Your task to perform on an android device: Is it going to rain today? Image 0: 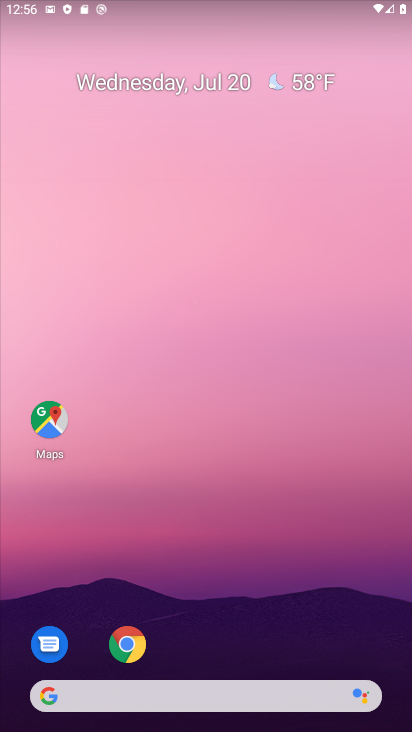
Step 0: drag from (193, 649) to (272, 79)
Your task to perform on an android device: Is it going to rain today? Image 1: 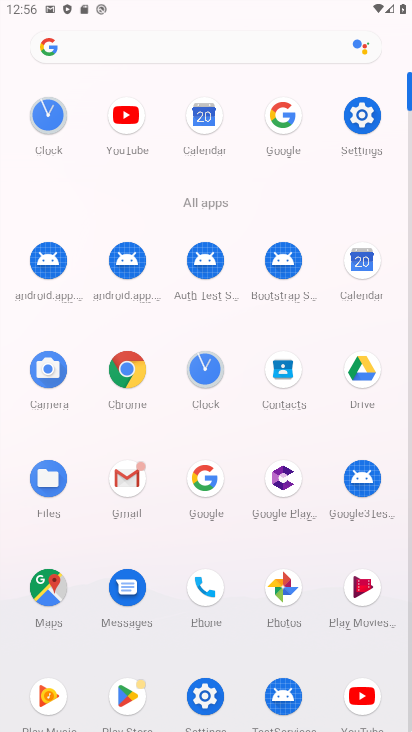
Step 1: click (206, 481)
Your task to perform on an android device: Is it going to rain today? Image 2: 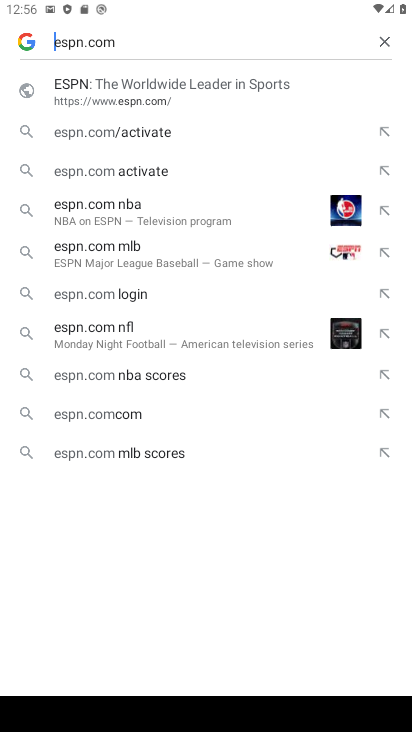
Step 2: click (392, 38)
Your task to perform on an android device: Is it going to rain today? Image 3: 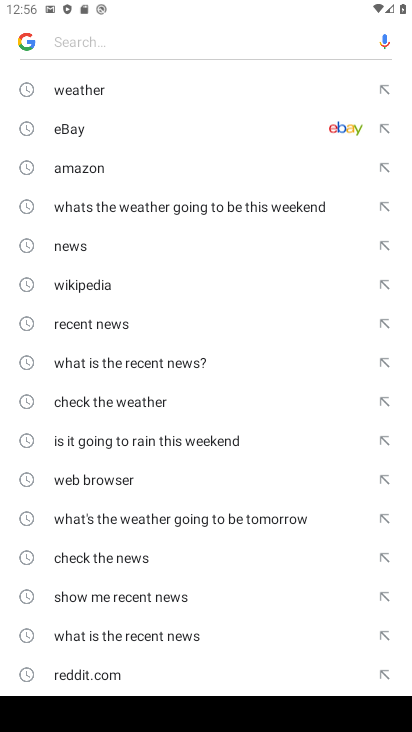
Step 3: type "is it going to rain today"
Your task to perform on an android device: Is it going to rain today? Image 4: 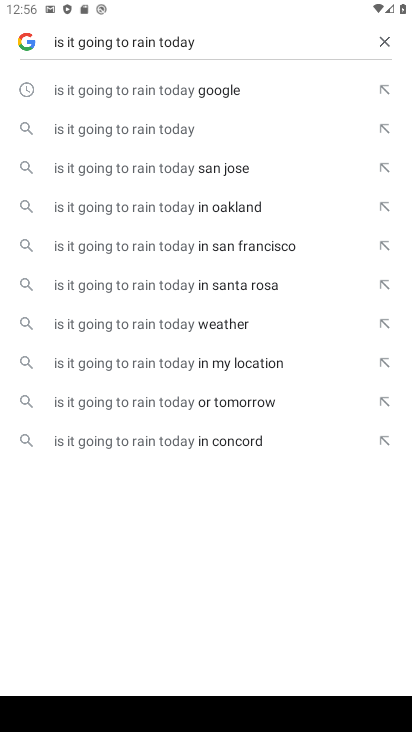
Step 4: click (177, 131)
Your task to perform on an android device: Is it going to rain today? Image 5: 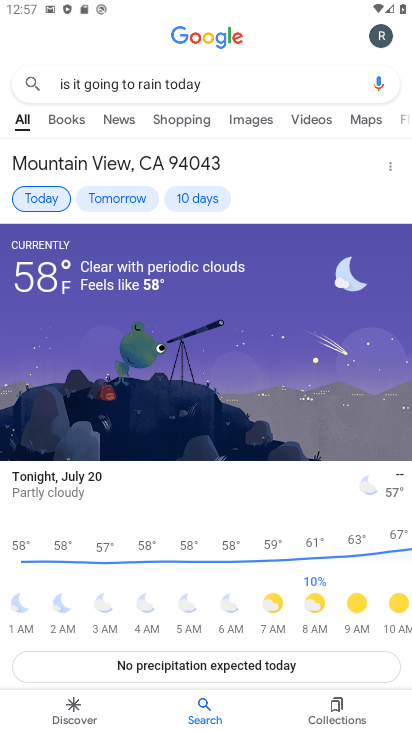
Step 5: task complete